Your task to perform on an android device: turn on translation in the chrome app Image 0: 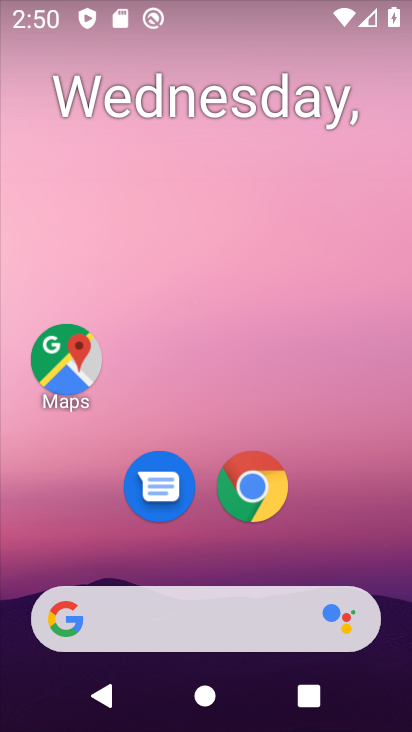
Step 0: click (251, 490)
Your task to perform on an android device: turn on translation in the chrome app Image 1: 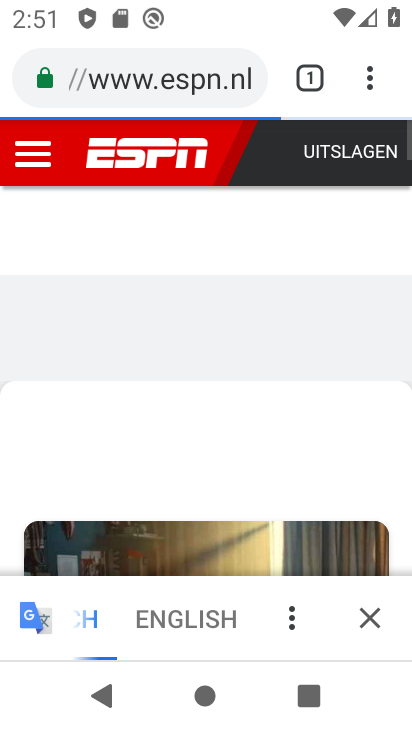
Step 1: click (367, 75)
Your task to perform on an android device: turn on translation in the chrome app Image 2: 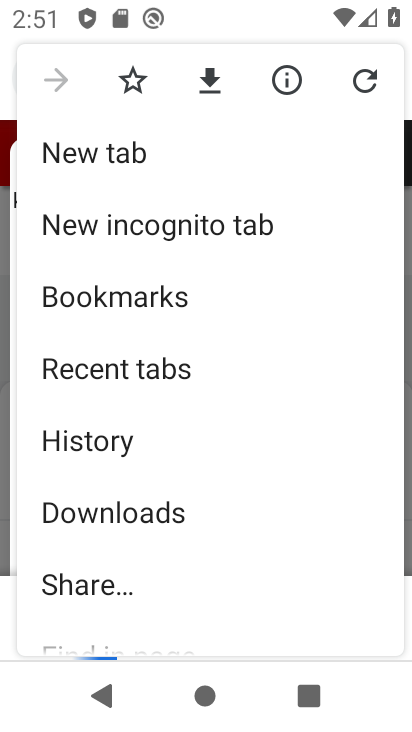
Step 2: click (406, 620)
Your task to perform on an android device: turn on translation in the chrome app Image 3: 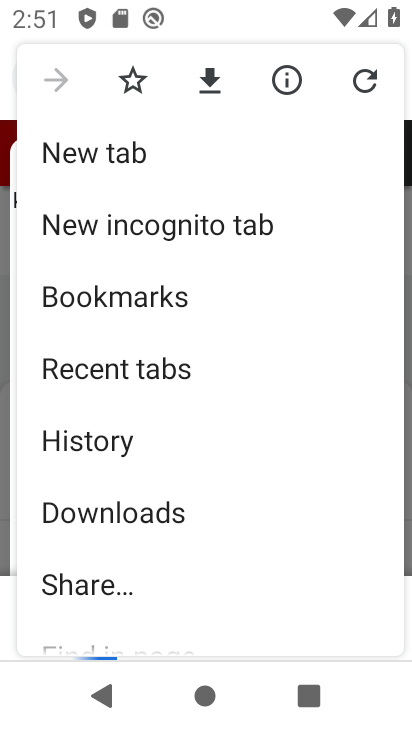
Step 3: click (406, 620)
Your task to perform on an android device: turn on translation in the chrome app Image 4: 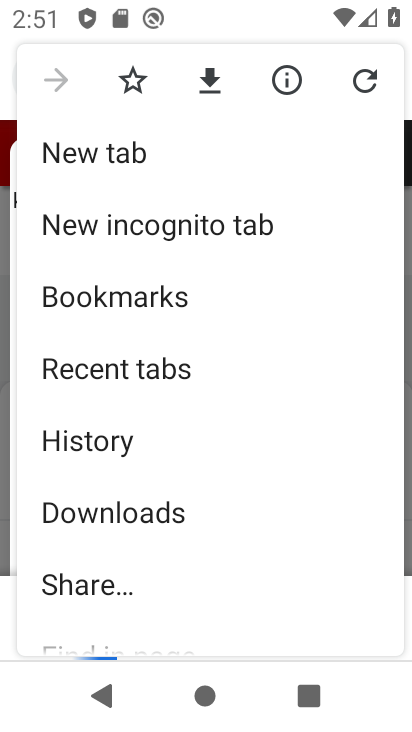
Step 4: click (406, 620)
Your task to perform on an android device: turn on translation in the chrome app Image 5: 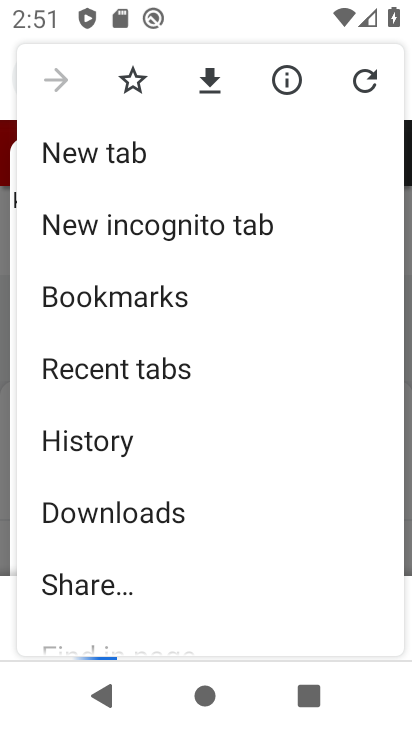
Step 5: drag from (163, 629) to (302, 198)
Your task to perform on an android device: turn on translation in the chrome app Image 6: 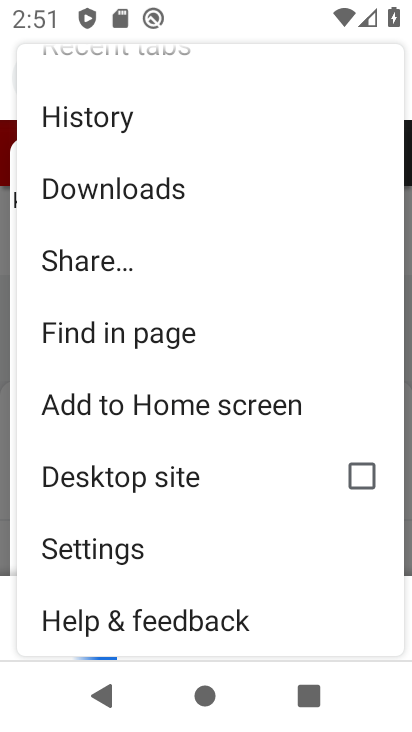
Step 6: click (90, 551)
Your task to perform on an android device: turn on translation in the chrome app Image 7: 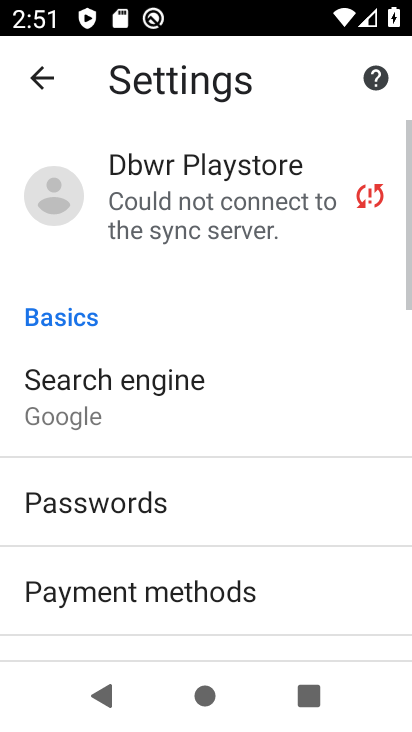
Step 7: drag from (79, 551) to (153, 164)
Your task to perform on an android device: turn on translation in the chrome app Image 8: 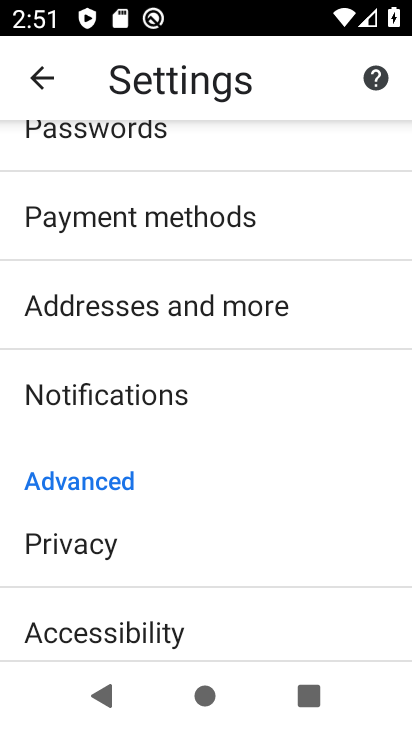
Step 8: drag from (135, 486) to (216, 88)
Your task to perform on an android device: turn on translation in the chrome app Image 9: 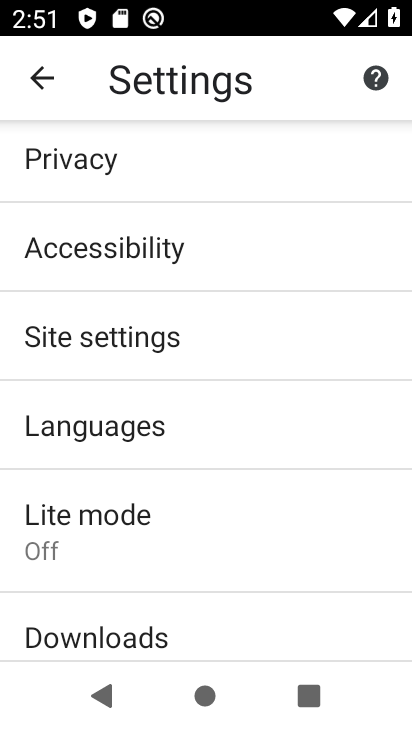
Step 9: click (132, 425)
Your task to perform on an android device: turn on translation in the chrome app Image 10: 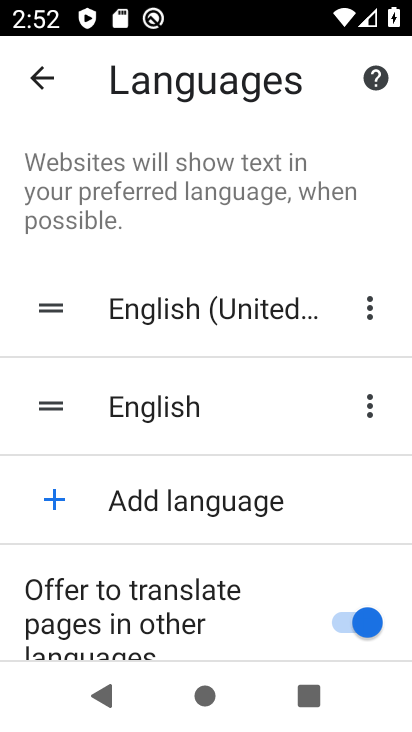
Step 10: task complete